Your task to perform on an android device: Open the calendar app, open the side menu, and click the "Day" option Image 0: 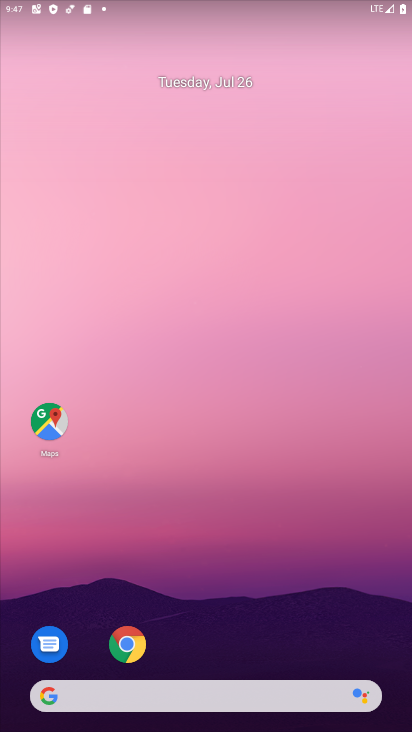
Step 0: drag from (254, 646) to (285, 26)
Your task to perform on an android device: Open the calendar app, open the side menu, and click the "Day" option Image 1: 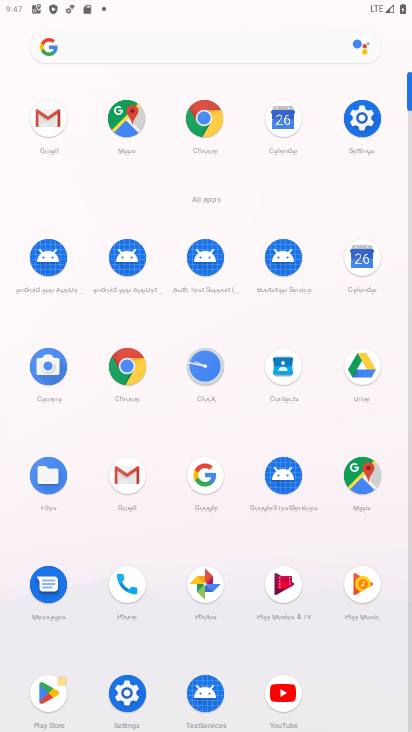
Step 1: click (363, 250)
Your task to perform on an android device: Open the calendar app, open the side menu, and click the "Day" option Image 2: 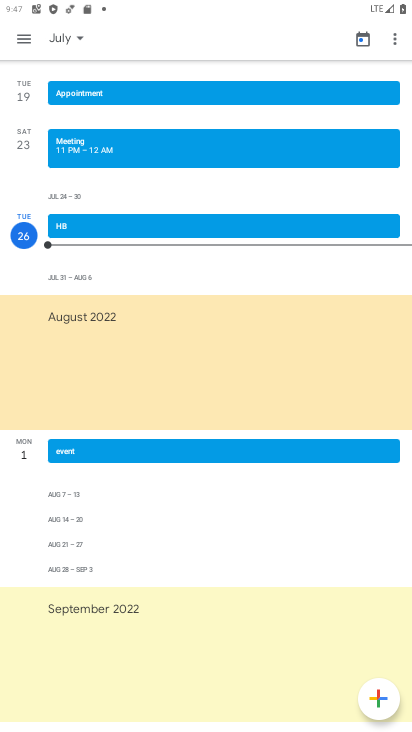
Step 2: click (26, 41)
Your task to perform on an android device: Open the calendar app, open the side menu, and click the "Day" option Image 3: 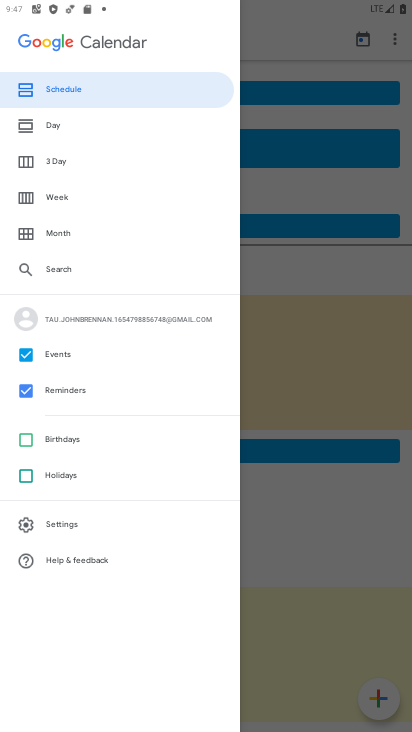
Step 3: click (37, 117)
Your task to perform on an android device: Open the calendar app, open the side menu, and click the "Day" option Image 4: 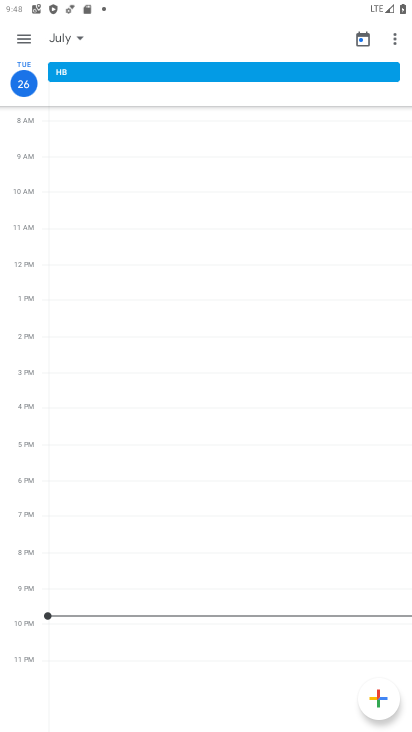
Step 4: task complete